Your task to perform on an android device: turn off smart reply in the gmail app Image 0: 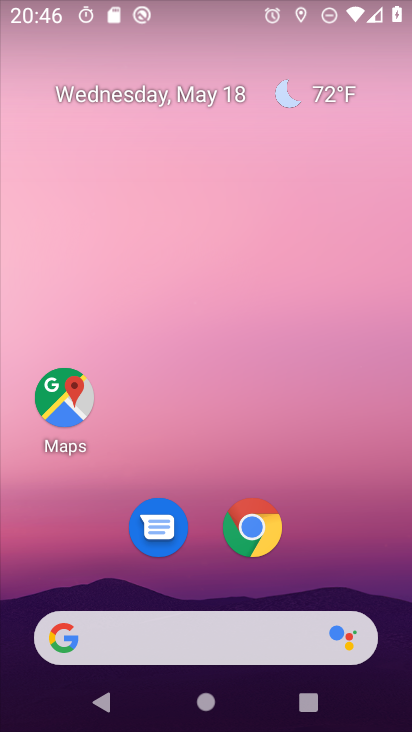
Step 0: drag from (391, 682) to (409, 93)
Your task to perform on an android device: turn off smart reply in the gmail app Image 1: 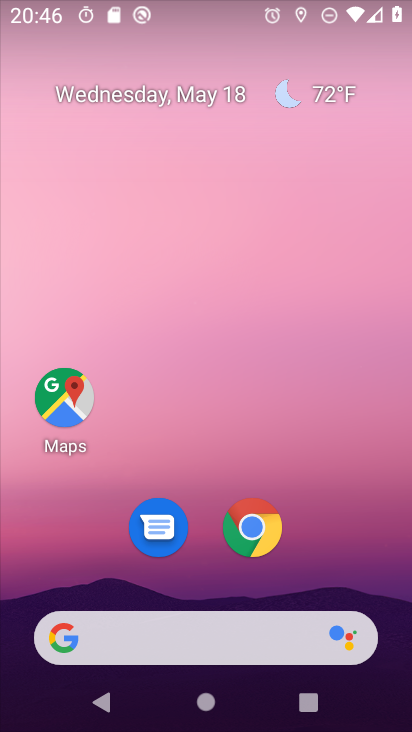
Step 1: drag from (385, 692) to (405, 151)
Your task to perform on an android device: turn off smart reply in the gmail app Image 2: 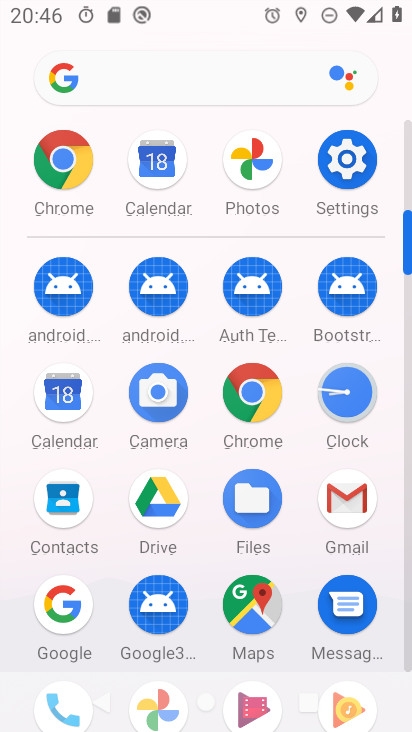
Step 2: click (353, 502)
Your task to perform on an android device: turn off smart reply in the gmail app Image 3: 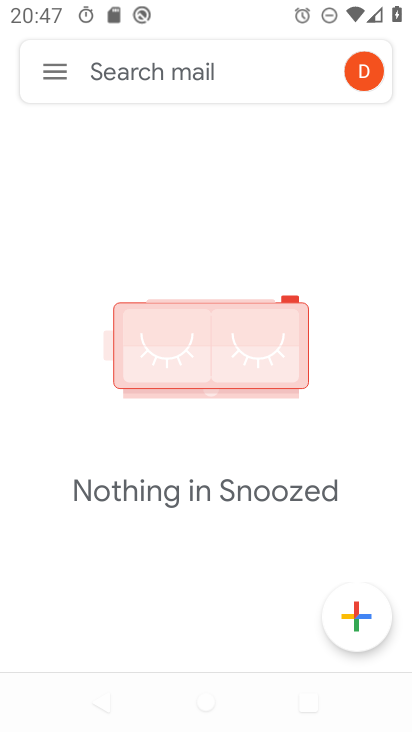
Step 3: click (51, 67)
Your task to perform on an android device: turn off smart reply in the gmail app Image 4: 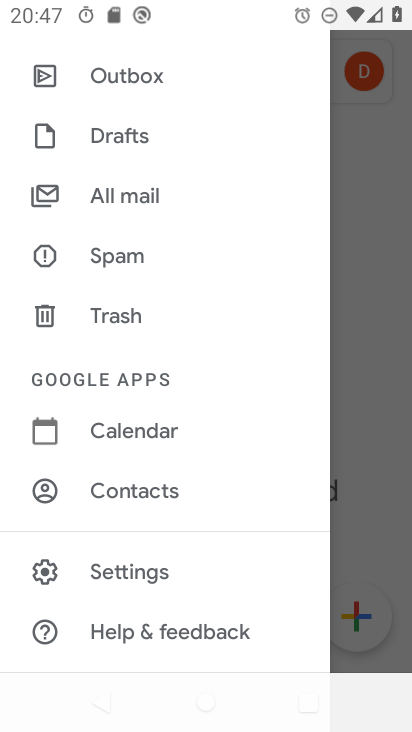
Step 4: click (139, 573)
Your task to perform on an android device: turn off smart reply in the gmail app Image 5: 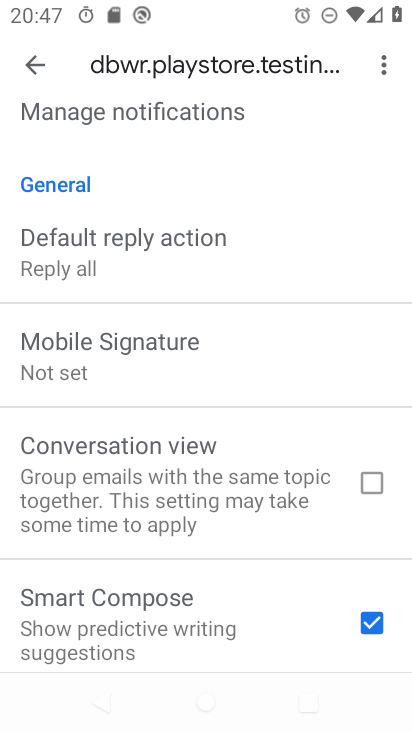
Step 5: drag from (224, 623) to (213, 381)
Your task to perform on an android device: turn off smart reply in the gmail app Image 6: 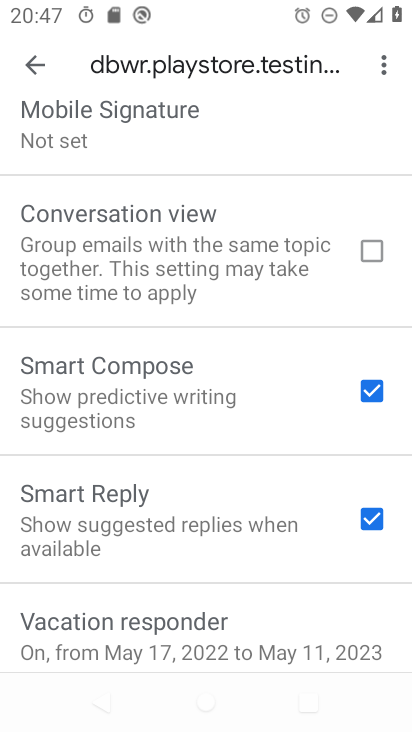
Step 6: drag from (214, 625) to (207, 514)
Your task to perform on an android device: turn off smart reply in the gmail app Image 7: 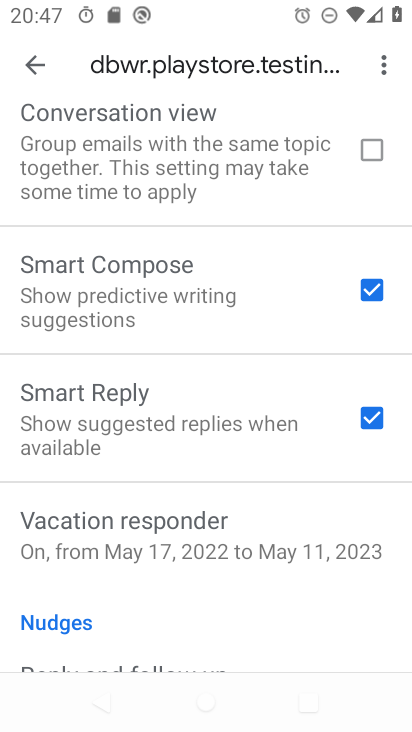
Step 7: click (373, 415)
Your task to perform on an android device: turn off smart reply in the gmail app Image 8: 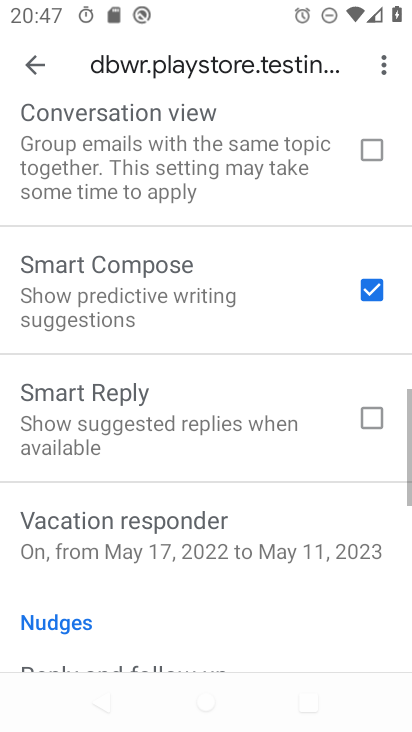
Step 8: task complete